Your task to perform on an android device: turn off airplane mode Image 0: 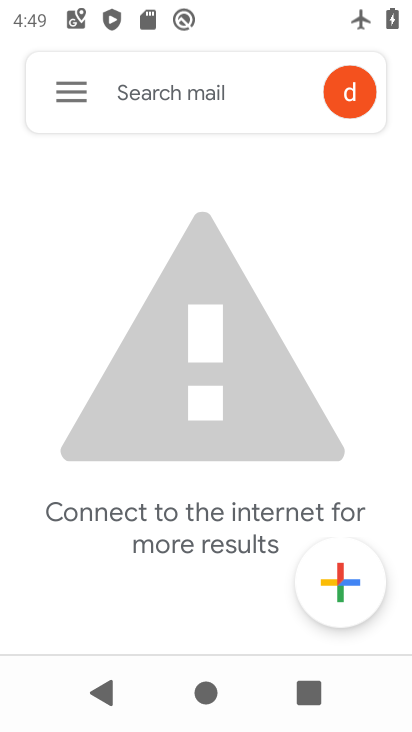
Step 0: press back button
Your task to perform on an android device: turn off airplane mode Image 1: 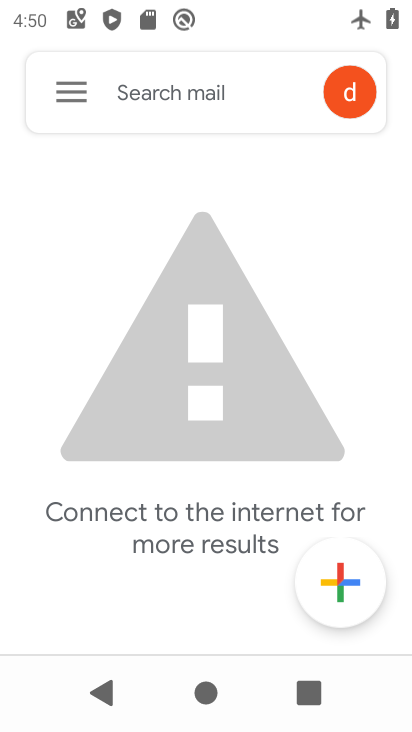
Step 1: press back button
Your task to perform on an android device: turn off airplane mode Image 2: 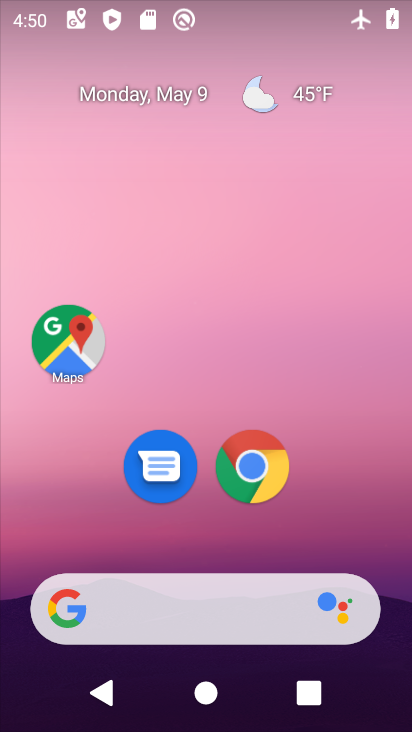
Step 2: drag from (352, 481) to (264, 0)
Your task to perform on an android device: turn off airplane mode Image 3: 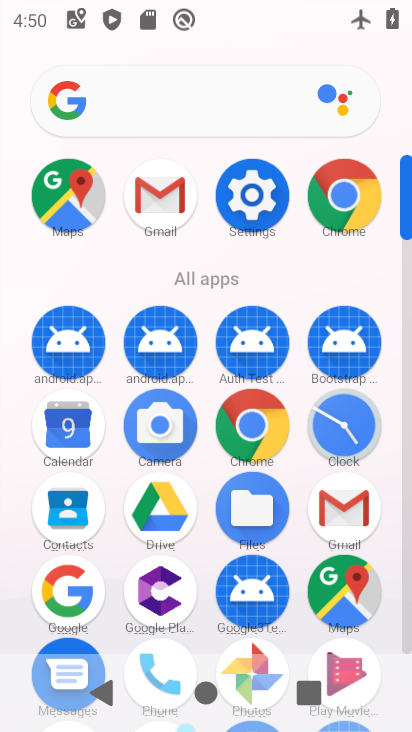
Step 3: click (249, 191)
Your task to perform on an android device: turn off airplane mode Image 4: 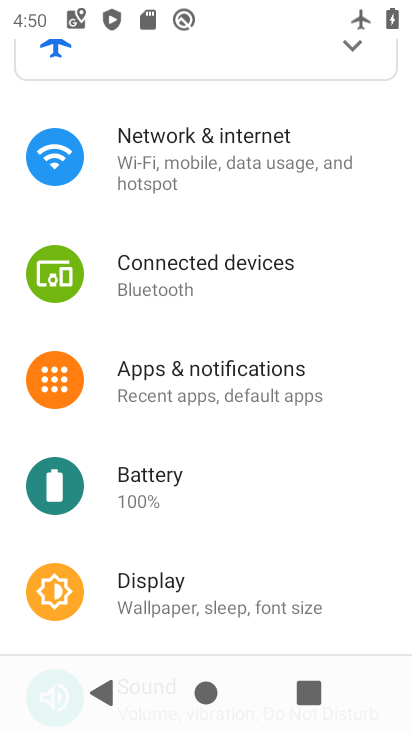
Step 4: click (260, 161)
Your task to perform on an android device: turn off airplane mode Image 5: 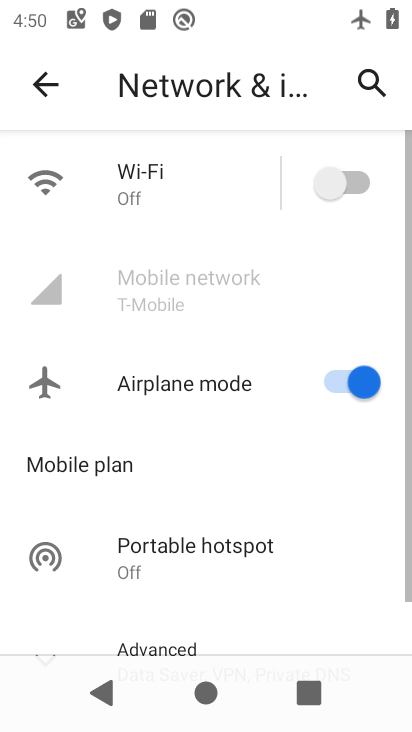
Step 5: click (353, 369)
Your task to perform on an android device: turn off airplane mode Image 6: 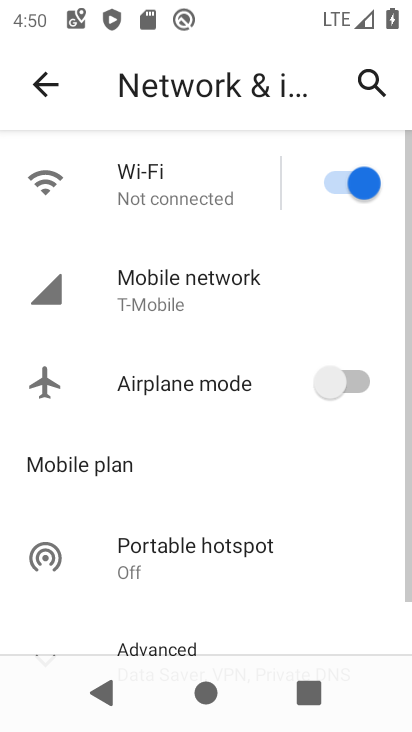
Step 6: task complete